Your task to perform on an android device: Search for dell xps on target.com, select the first entry, add it to the cart, then select checkout. Image 0: 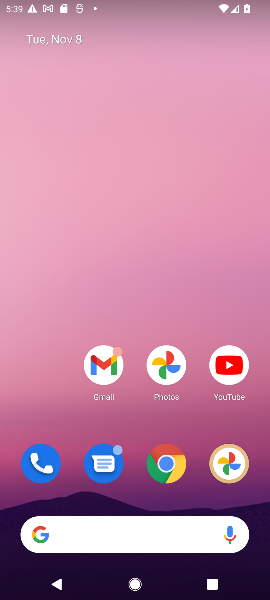
Step 0: click (167, 472)
Your task to perform on an android device: Search for dell xps on target.com, select the first entry, add it to the cart, then select checkout. Image 1: 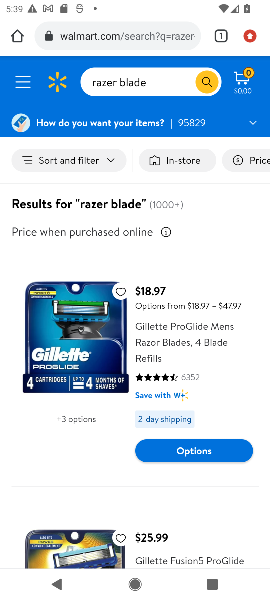
Step 1: click (111, 34)
Your task to perform on an android device: Search for dell xps on target.com, select the first entry, add it to the cart, then select checkout. Image 2: 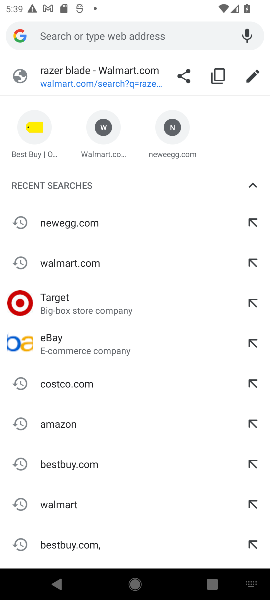
Step 2: click (79, 299)
Your task to perform on an android device: Search for dell xps on target.com, select the first entry, add it to the cart, then select checkout. Image 3: 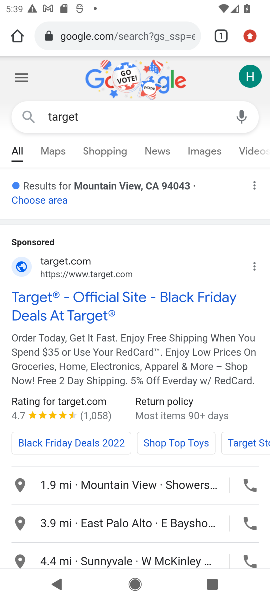
Step 3: click (79, 299)
Your task to perform on an android device: Search for dell xps on target.com, select the first entry, add it to the cart, then select checkout. Image 4: 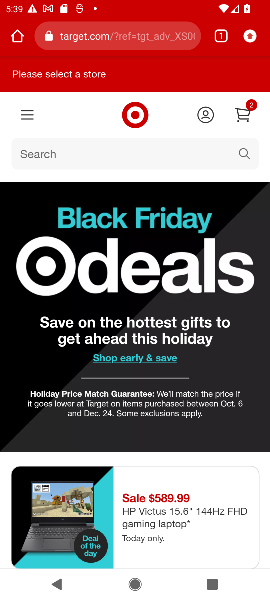
Step 4: click (76, 155)
Your task to perform on an android device: Search for dell xps on target.com, select the first entry, add it to the cart, then select checkout. Image 5: 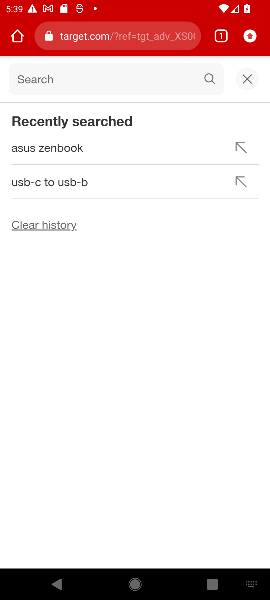
Step 5: type "dell xps"
Your task to perform on an android device: Search for dell xps on target.com, select the first entry, add it to the cart, then select checkout. Image 6: 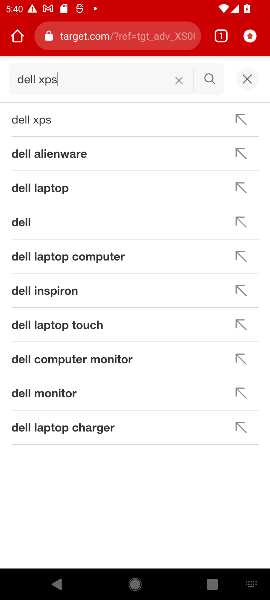
Step 6: click (210, 75)
Your task to perform on an android device: Search for dell xps on target.com, select the first entry, add it to the cart, then select checkout. Image 7: 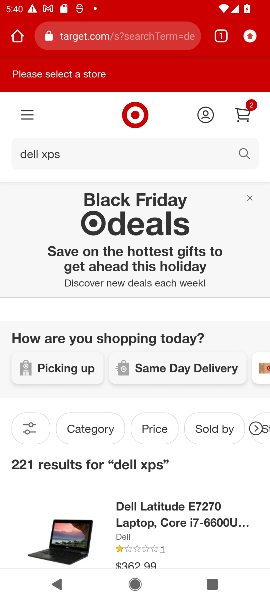
Step 7: drag from (136, 495) to (135, 267)
Your task to perform on an android device: Search for dell xps on target.com, select the first entry, add it to the cart, then select checkout. Image 8: 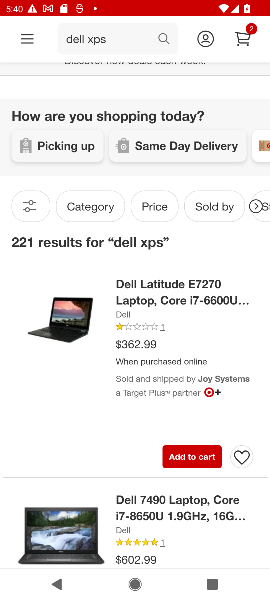
Step 8: click (180, 457)
Your task to perform on an android device: Search for dell xps on target.com, select the first entry, add it to the cart, then select checkout. Image 9: 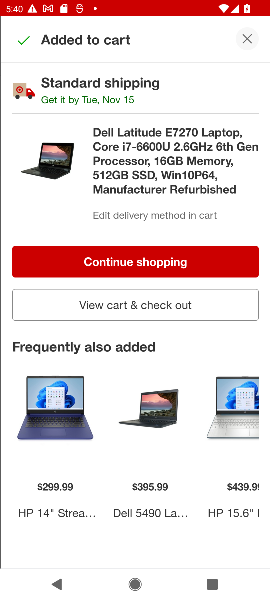
Step 9: click (95, 301)
Your task to perform on an android device: Search for dell xps on target.com, select the first entry, add it to the cart, then select checkout. Image 10: 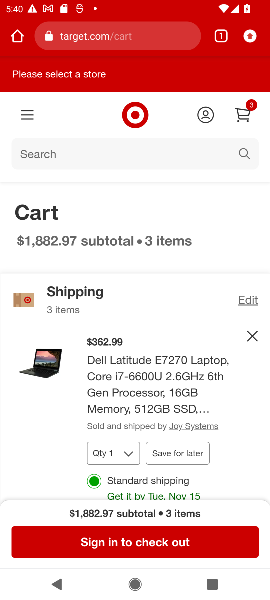
Step 10: task complete